Your task to perform on an android device: See recent photos Image 0: 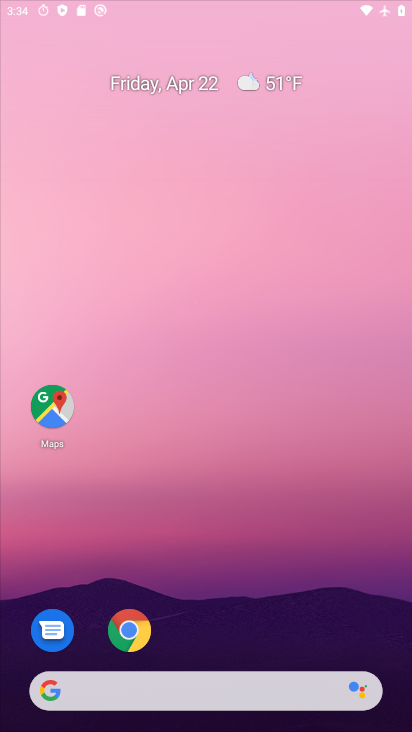
Step 0: drag from (247, 419) to (200, 17)
Your task to perform on an android device: See recent photos Image 1: 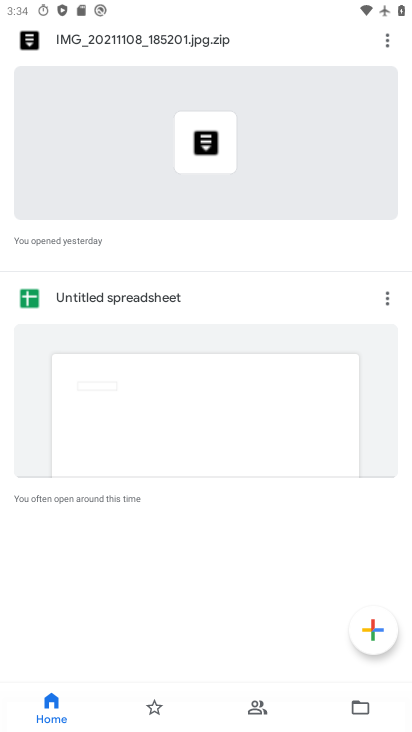
Step 1: press back button
Your task to perform on an android device: See recent photos Image 2: 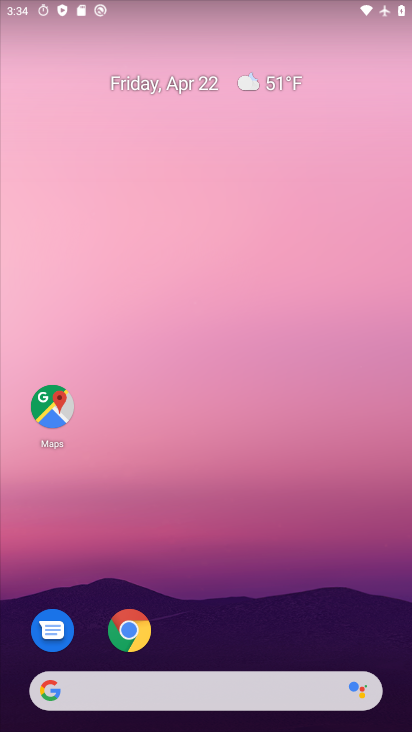
Step 2: drag from (265, 586) to (212, 73)
Your task to perform on an android device: See recent photos Image 3: 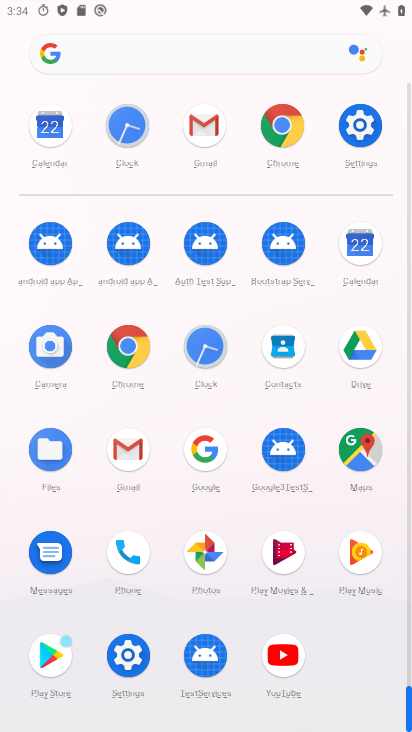
Step 3: click (206, 550)
Your task to perform on an android device: See recent photos Image 4: 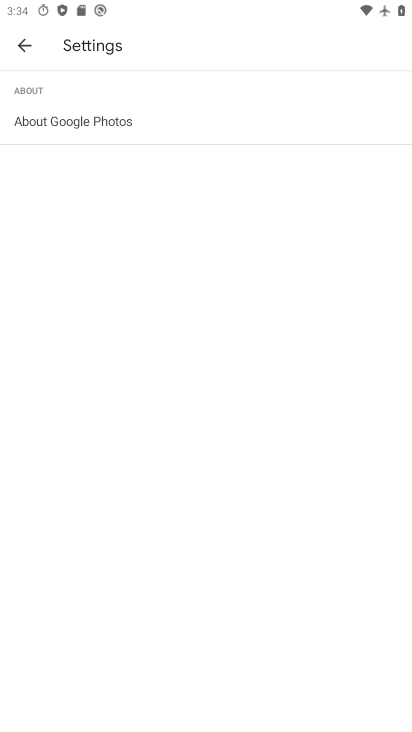
Step 4: click (18, 44)
Your task to perform on an android device: See recent photos Image 5: 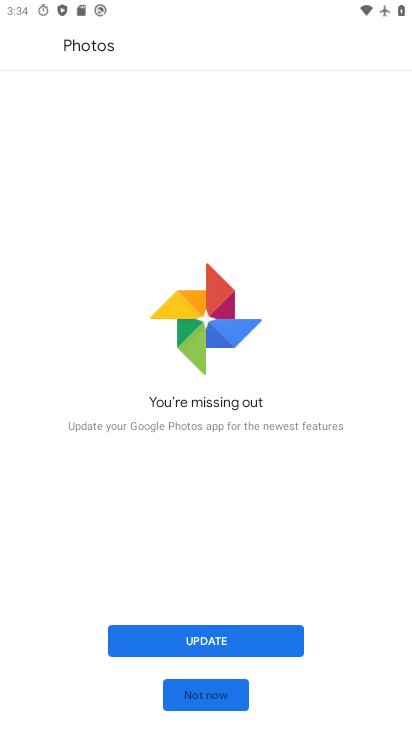
Step 5: click (230, 645)
Your task to perform on an android device: See recent photos Image 6: 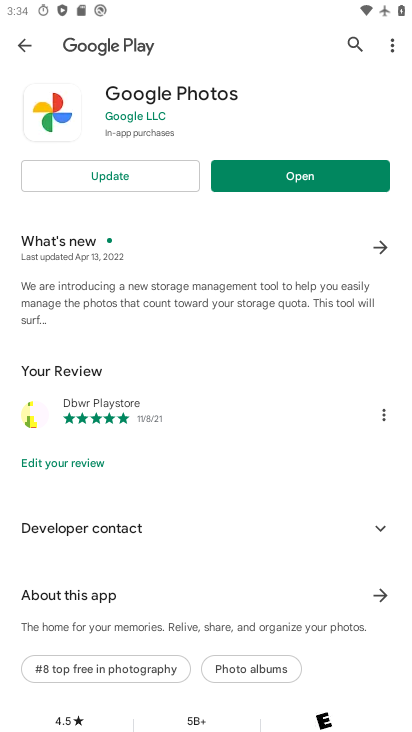
Step 6: click (115, 165)
Your task to perform on an android device: See recent photos Image 7: 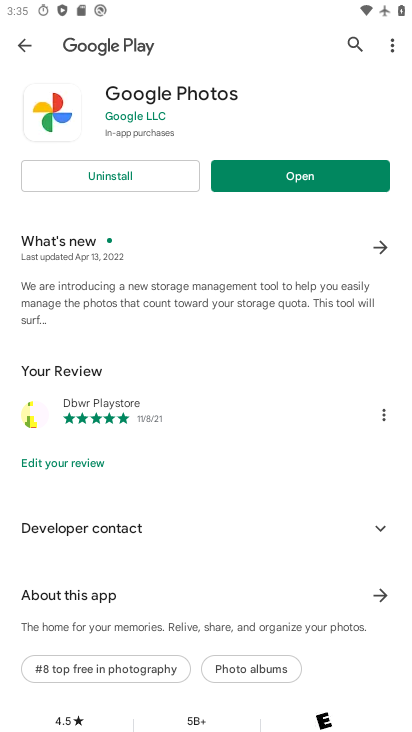
Step 7: click (305, 183)
Your task to perform on an android device: See recent photos Image 8: 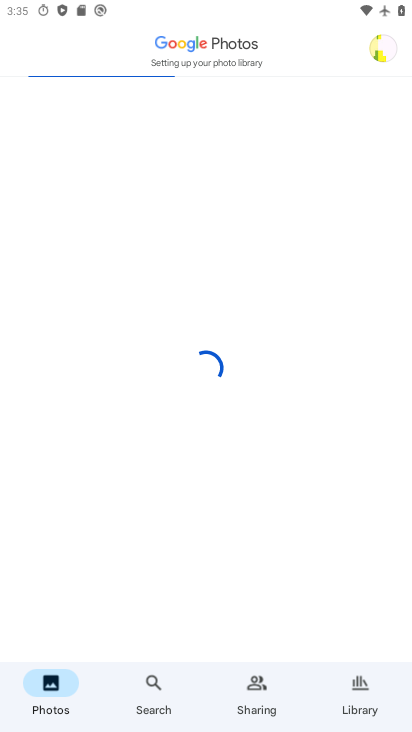
Step 8: click (253, 687)
Your task to perform on an android device: See recent photos Image 9: 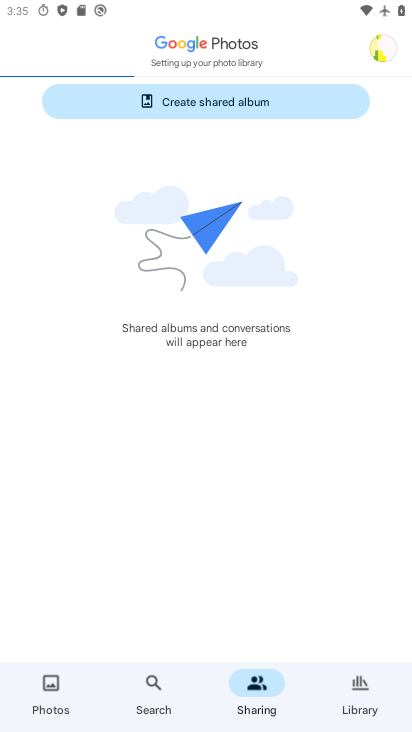
Step 9: click (26, 699)
Your task to perform on an android device: See recent photos Image 10: 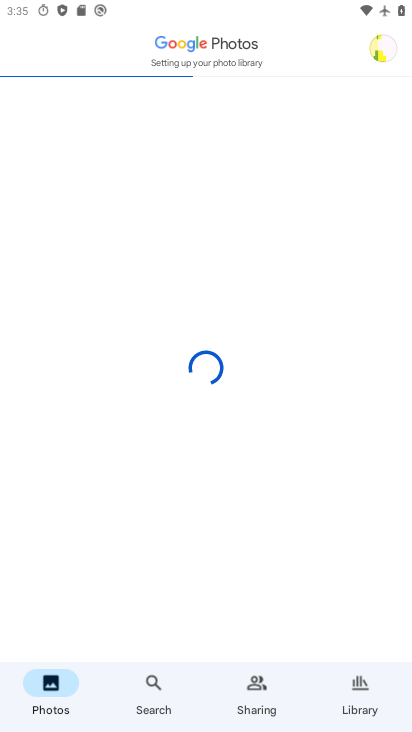
Step 10: task complete